Your task to perform on an android device: Search for sushi restaurants on Maps Image 0: 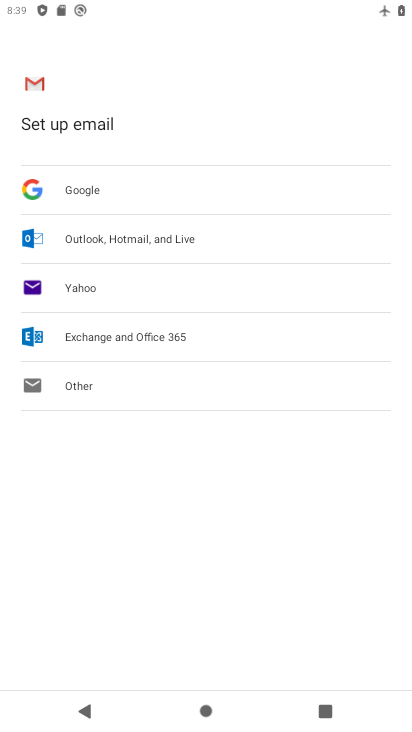
Step 0: press home button
Your task to perform on an android device: Search for sushi restaurants on Maps Image 1: 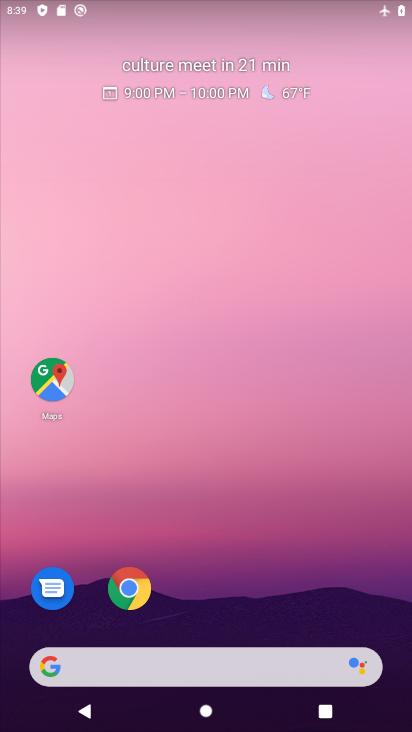
Step 1: drag from (324, 600) to (411, 3)
Your task to perform on an android device: Search for sushi restaurants on Maps Image 2: 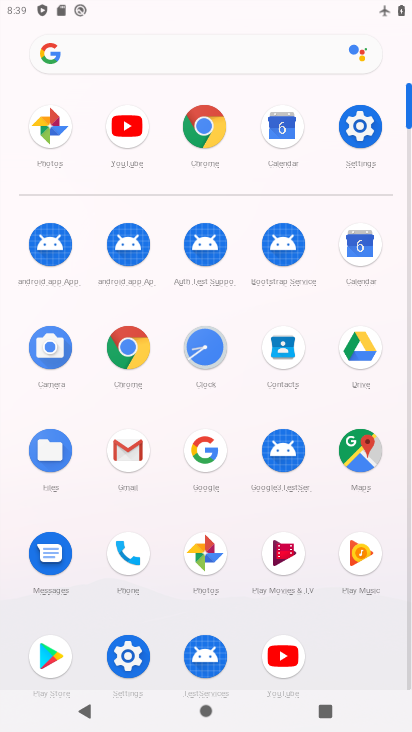
Step 2: click (359, 448)
Your task to perform on an android device: Search for sushi restaurants on Maps Image 3: 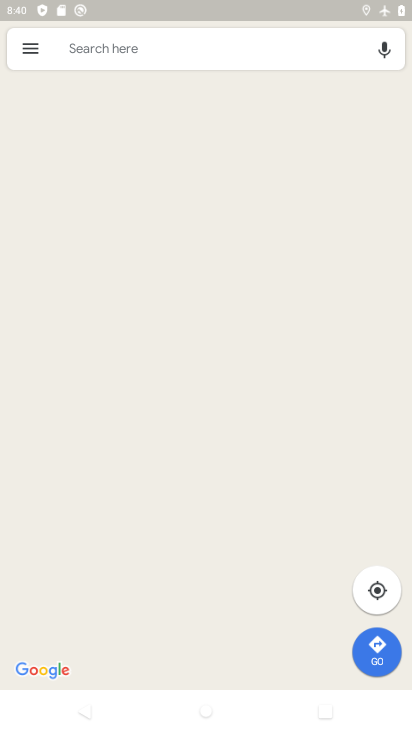
Step 3: click (119, 59)
Your task to perform on an android device: Search for sushi restaurants on Maps Image 4: 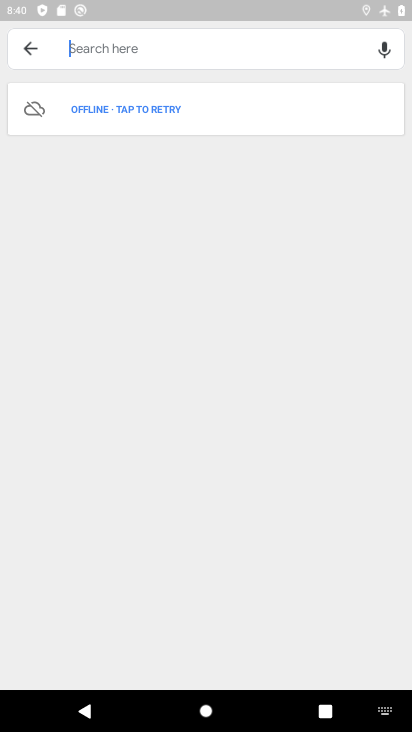
Step 4: task complete